Your task to perform on an android device: change the upload size in google photos Image 0: 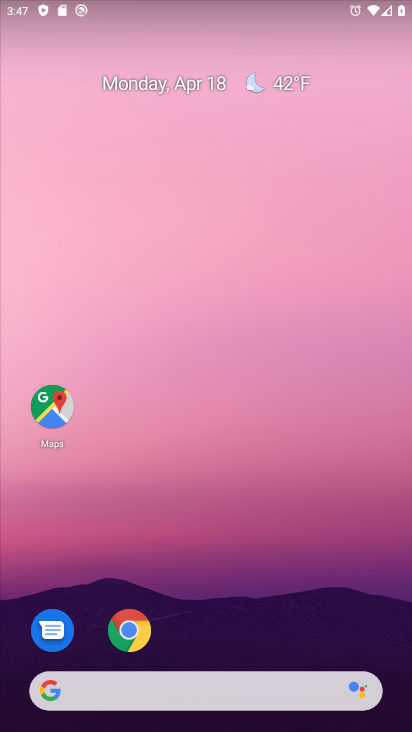
Step 0: drag from (183, 652) to (292, 112)
Your task to perform on an android device: change the upload size in google photos Image 1: 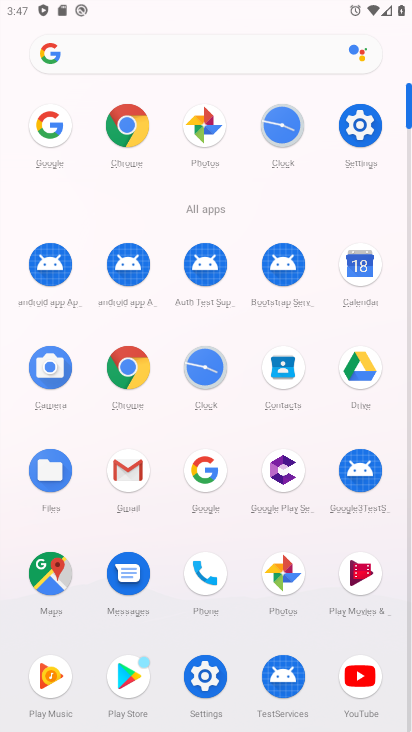
Step 1: click (286, 577)
Your task to perform on an android device: change the upload size in google photos Image 2: 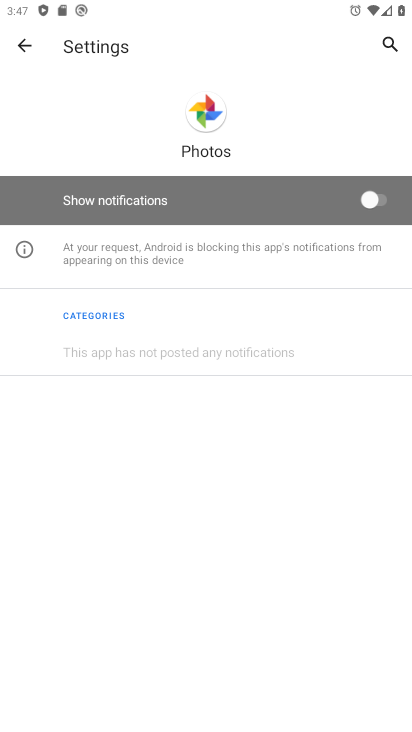
Step 2: press back button
Your task to perform on an android device: change the upload size in google photos Image 3: 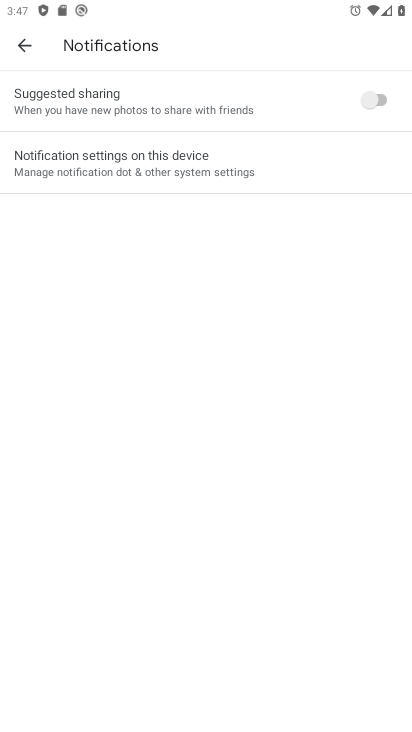
Step 3: press back button
Your task to perform on an android device: change the upload size in google photos Image 4: 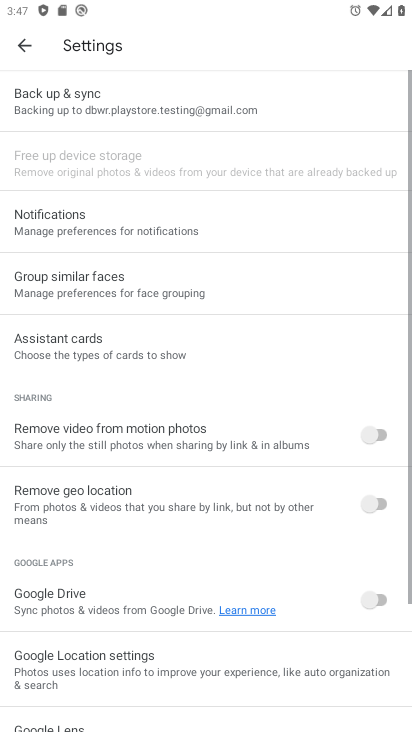
Step 4: press back button
Your task to perform on an android device: change the upload size in google photos Image 5: 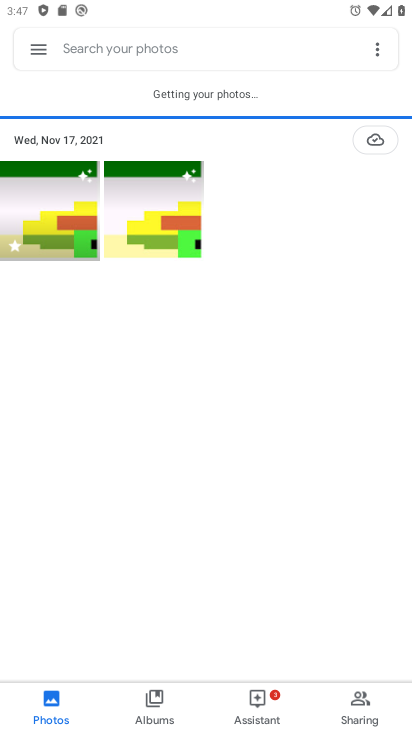
Step 5: click (46, 50)
Your task to perform on an android device: change the upload size in google photos Image 6: 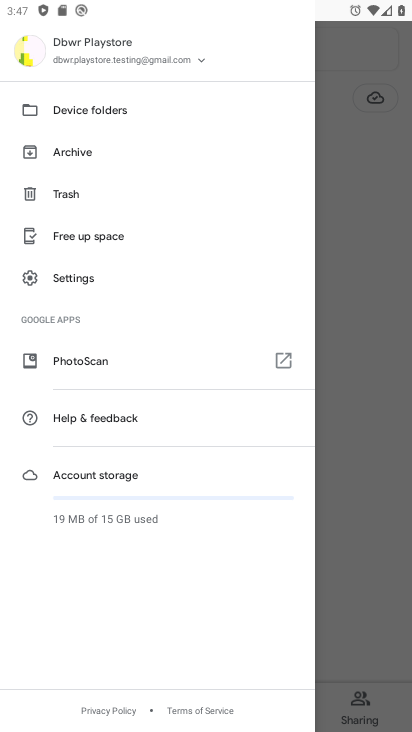
Step 6: click (110, 283)
Your task to perform on an android device: change the upload size in google photos Image 7: 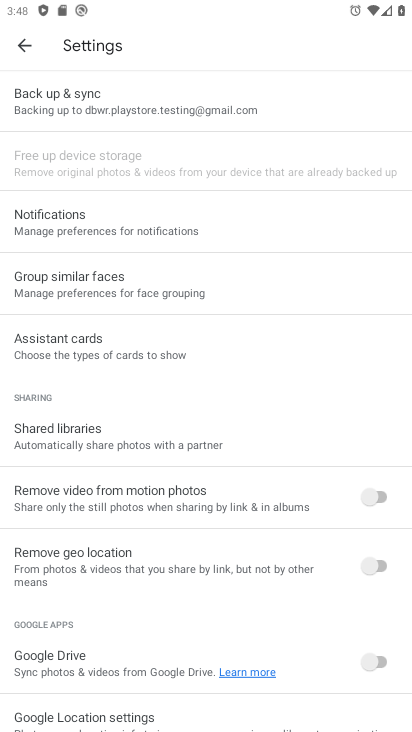
Step 7: click (139, 102)
Your task to perform on an android device: change the upload size in google photos Image 8: 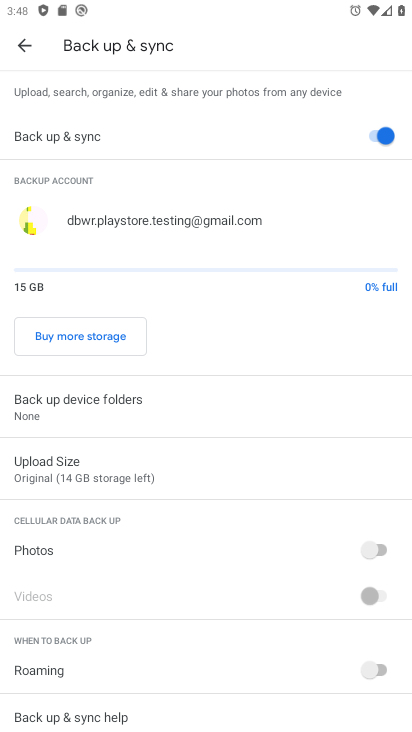
Step 8: click (133, 474)
Your task to perform on an android device: change the upload size in google photos Image 9: 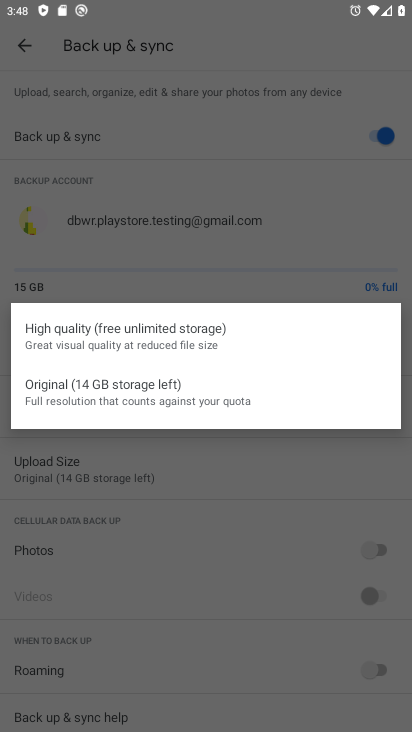
Step 9: click (143, 344)
Your task to perform on an android device: change the upload size in google photos Image 10: 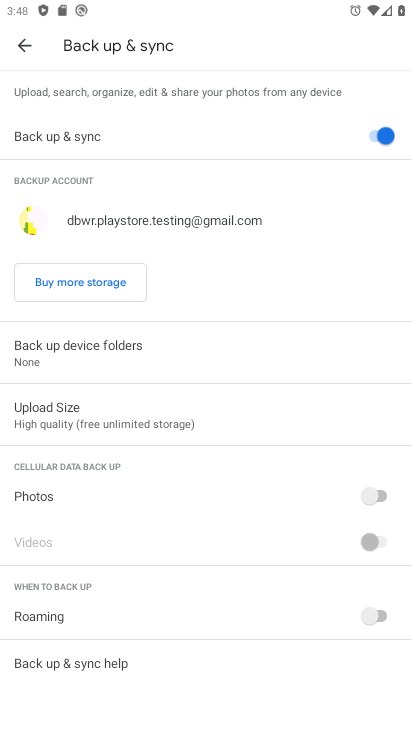
Step 10: task complete